Your task to perform on an android device: Open accessibility settings Image 0: 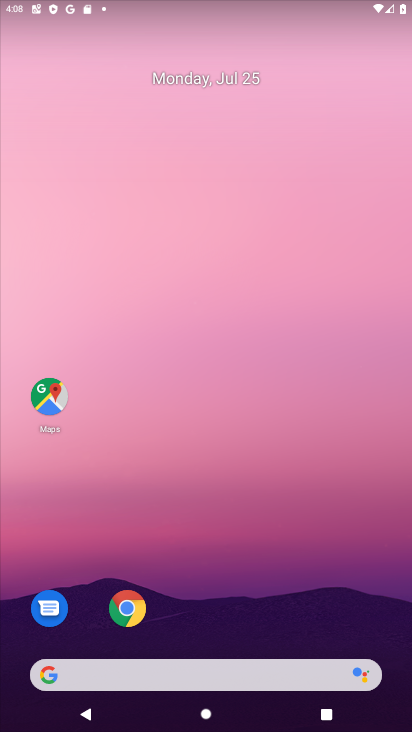
Step 0: press home button
Your task to perform on an android device: Open accessibility settings Image 1: 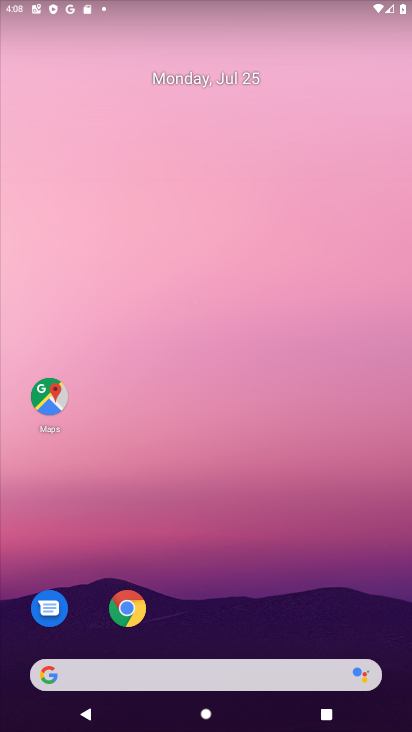
Step 1: drag from (214, 640) to (168, 78)
Your task to perform on an android device: Open accessibility settings Image 2: 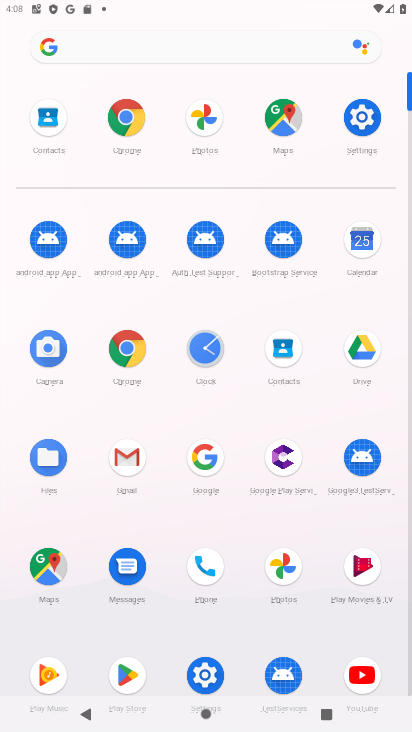
Step 2: click (354, 112)
Your task to perform on an android device: Open accessibility settings Image 3: 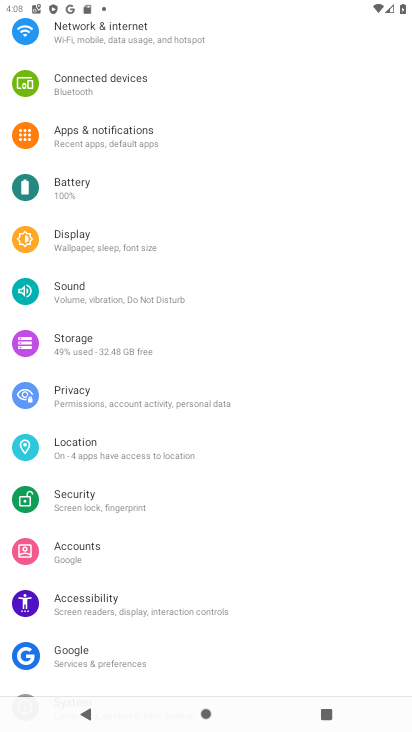
Step 3: click (125, 593)
Your task to perform on an android device: Open accessibility settings Image 4: 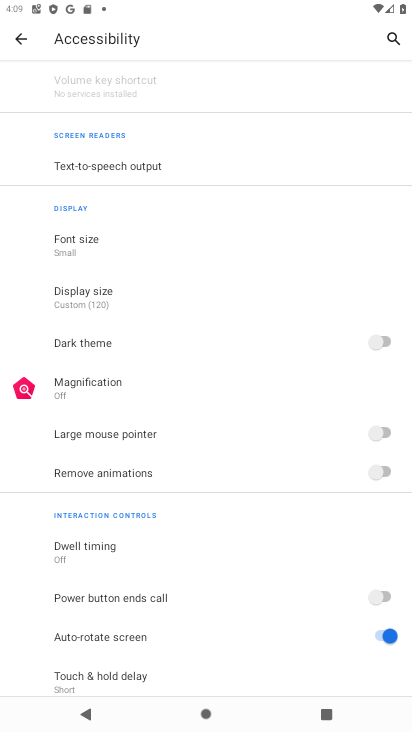
Step 4: task complete